Your task to perform on an android device: What is the news today? Image 0: 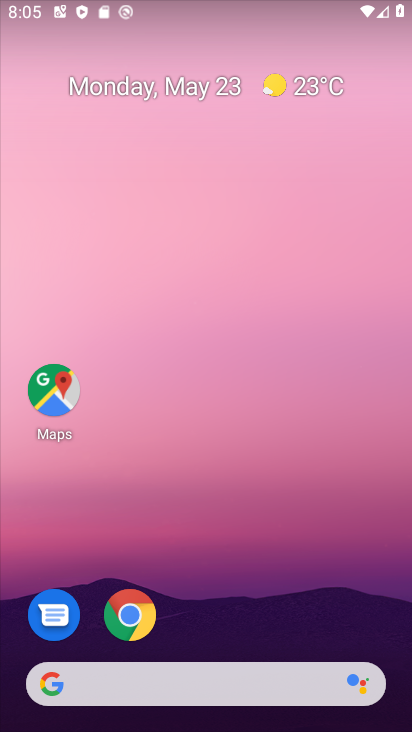
Step 0: drag from (244, 594) to (241, 196)
Your task to perform on an android device: What is the news today? Image 1: 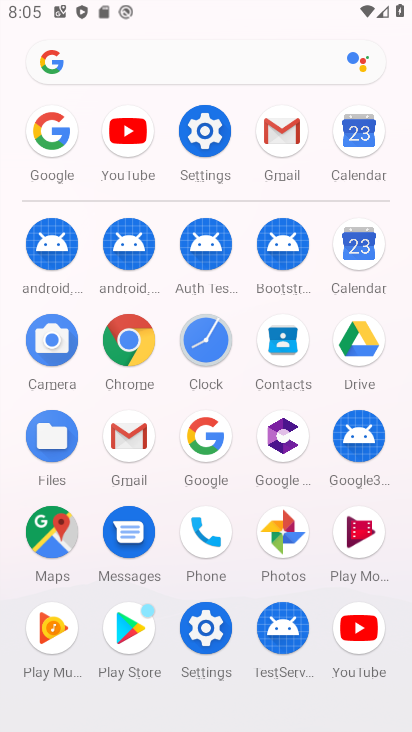
Step 1: click (200, 435)
Your task to perform on an android device: What is the news today? Image 2: 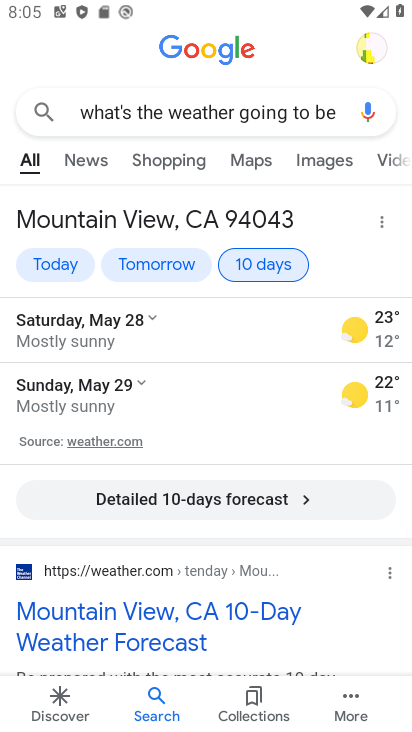
Step 2: click (292, 119)
Your task to perform on an android device: What is the news today? Image 3: 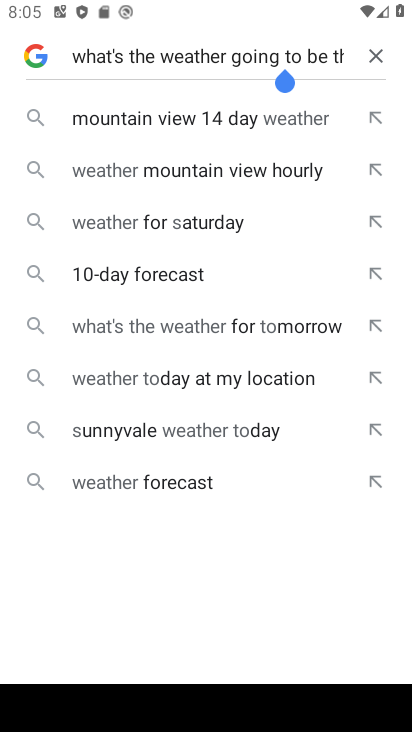
Step 3: click (375, 58)
Your task to perform on an android device: What is the news today? Image 4: 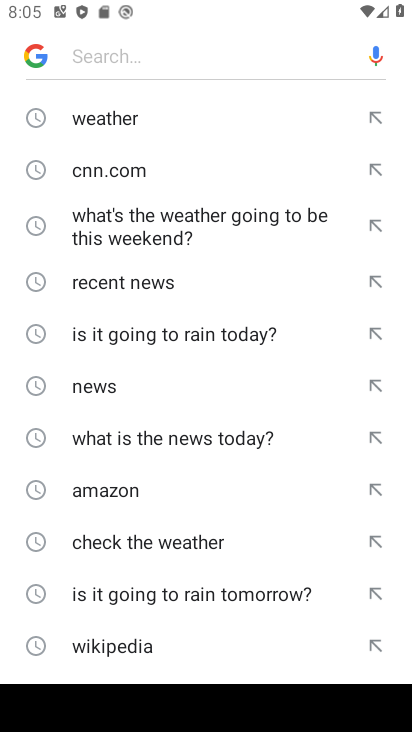
Step 4: click (252, 74)
Your task to perform on an android device: What is the news today? Image 5: 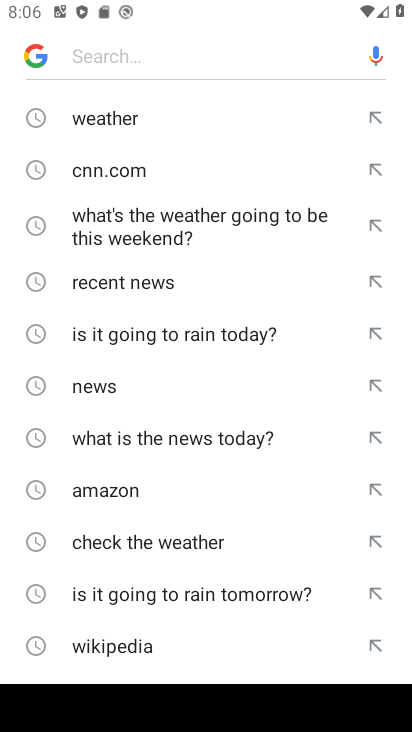
Step 5: type "news today"
Your task to perform on an android device: What is the news today? Image 6: 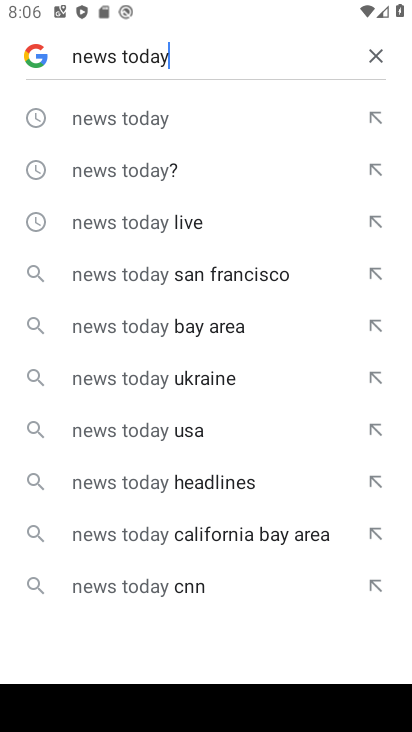
Step 6: click (150, 123)
Your task to perform on an android device: What is the news today? Image 7: 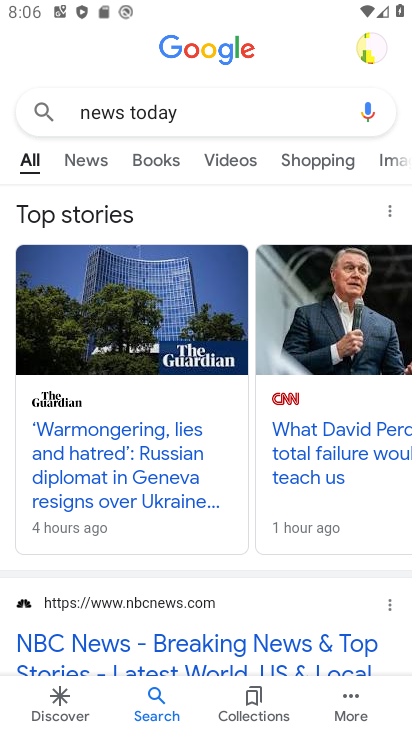
Step 7: task complete